Your task to perform on an android device: change alarm snooze length Image 0: 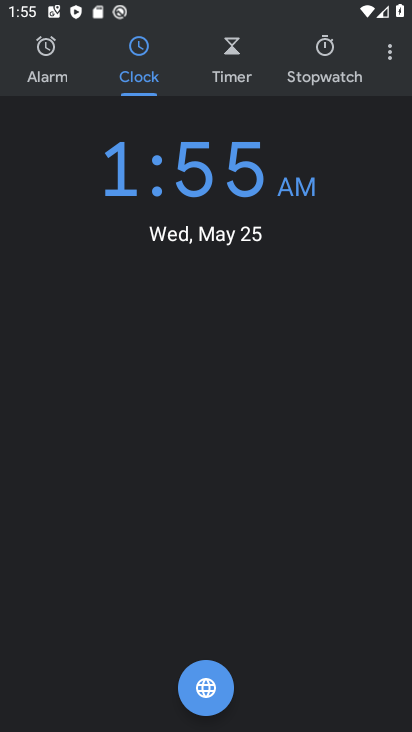
Step 0: press home button
Your task to perform on an android device: change alarm snooze length Image 1: 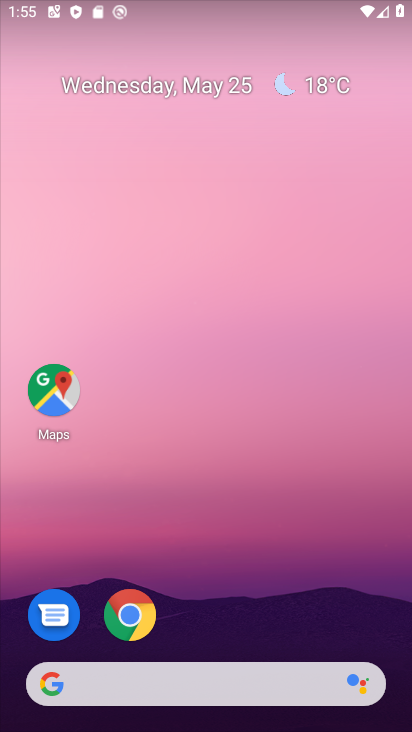
Step 1: drag from (242, 526) to (234, 30)
Your task to perform on an android device: change alarm snooze length Image 2: 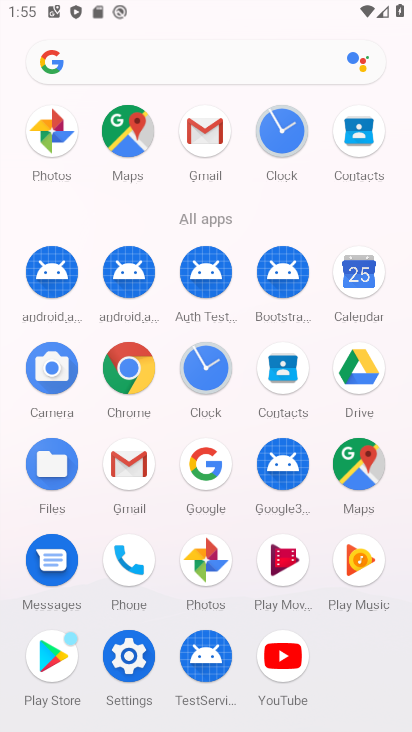
Step 2: click (273, 137)
Your task to perform on an android device: change alarm snooze length Image 3: 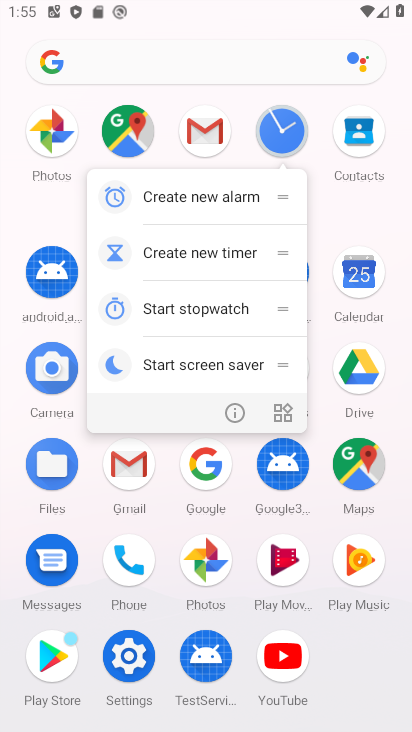
Step 3: click (281, 128)
Your task to perform on an android device: change alarm snooze length Image 4: 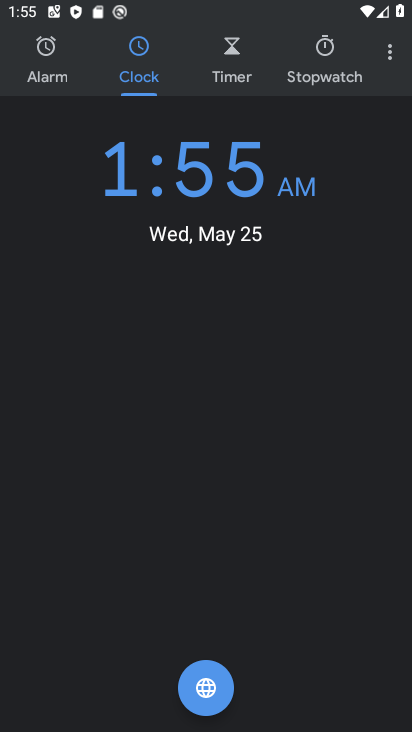
Step 4: click (394, 56)
Your task to perform on an android device: change alarm snooze length Image 5: 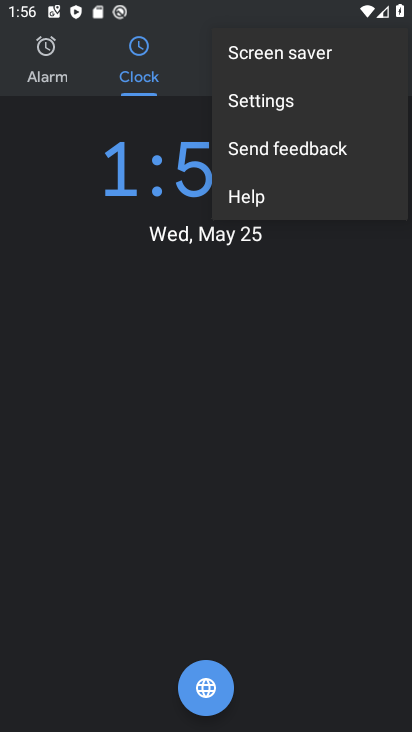
Step 5: click (321, 96)
Your task to perform on an android device: change alarm snooze length Image 6: 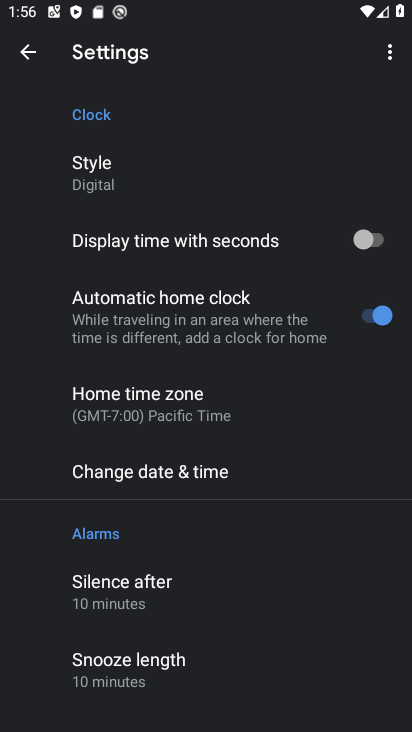
Step 6: click (146, 661)
Your task to perform on an android device: change alarm snooze length Image 7: 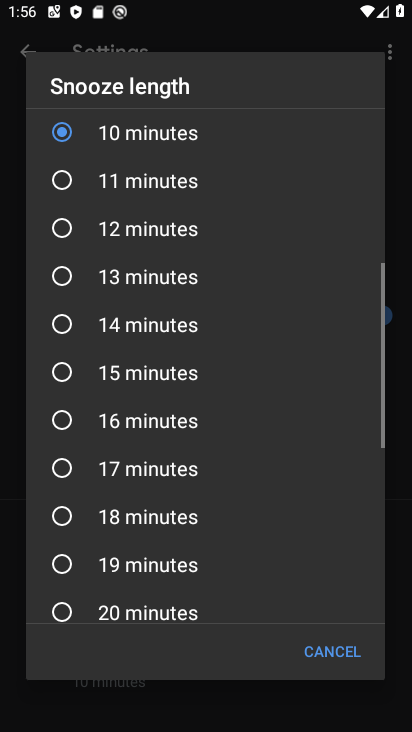
Step 7: click (126, 177)
Your task to perform on an android device: change alarm snooze length Image 8: 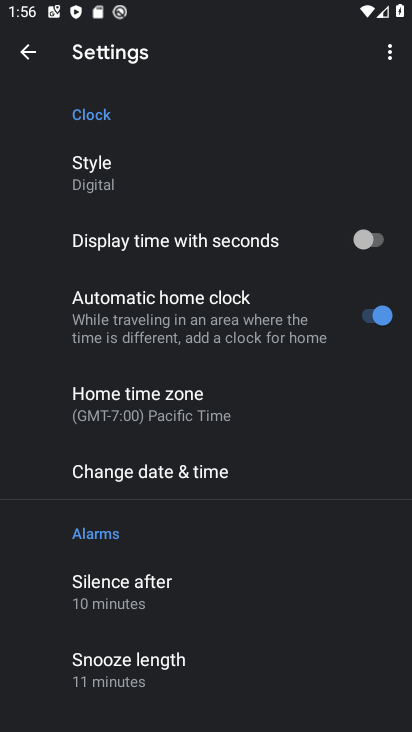
Step 8: task complete